Your task to perform on an android device: Open the Play Movies app and select the watchlist tab. Image 0: 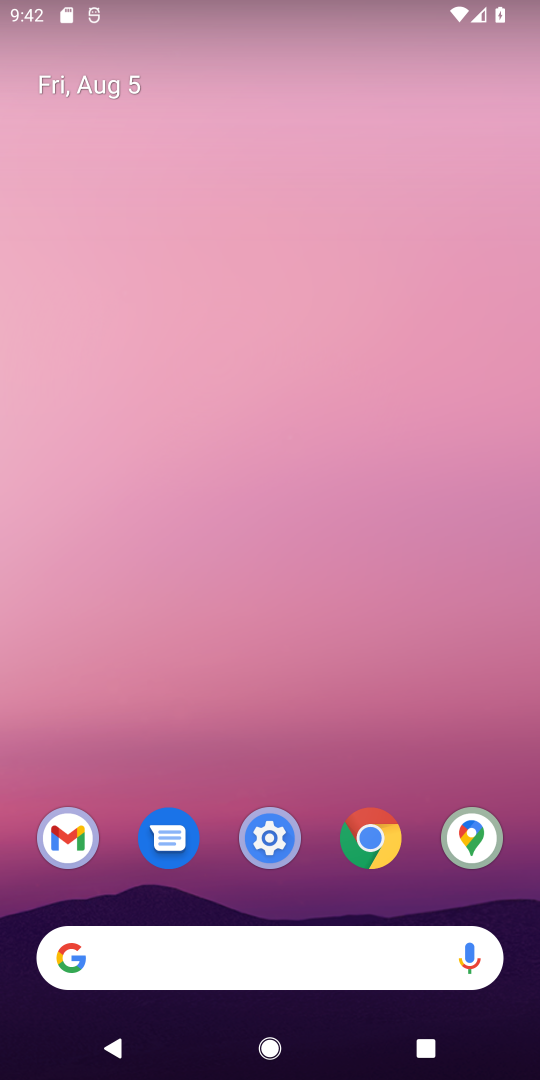
Step 0: drag from (224, 770) to (125, 173)
Your task to perform on an android device: Open the Play Movies app and select the watchlist tab. Image 1: 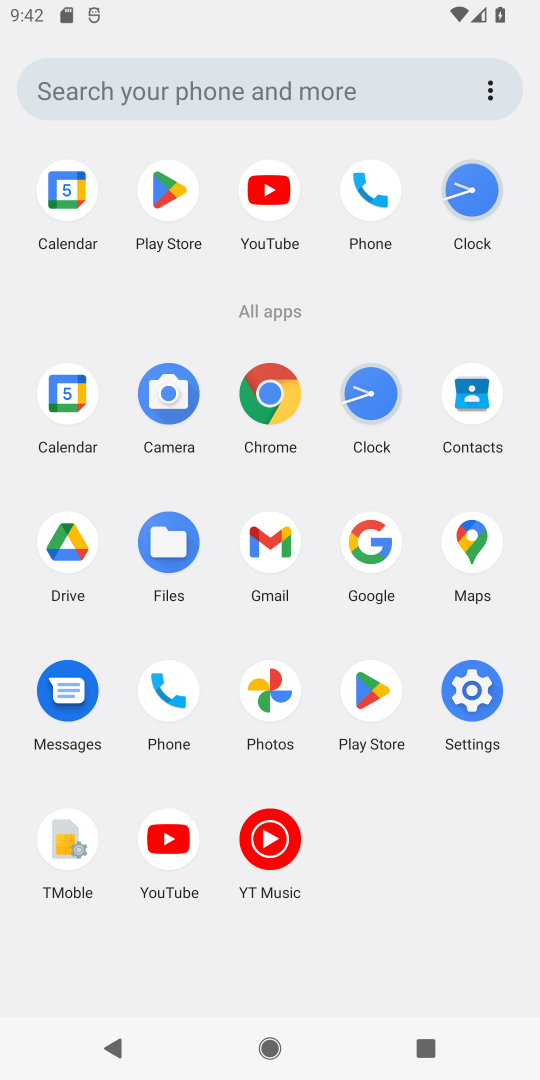
Step 1: task complete